Your task to perform on an android device: turn on improve location accuracy Image 0: 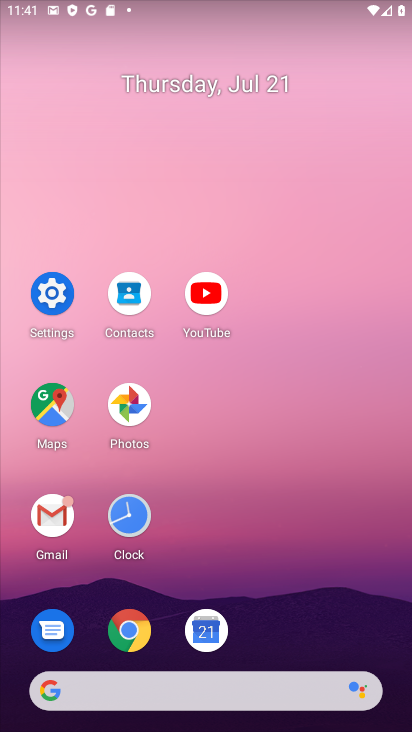
Step 0: click (49, 294)
Your task to perform on an android device: turn on improve location accuracy Image 1: 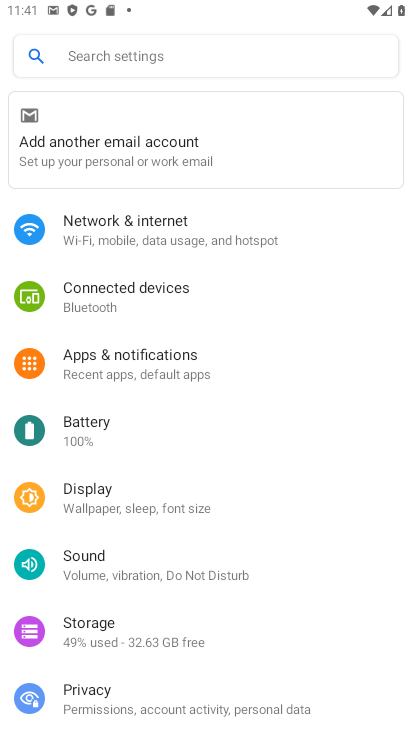
Step 1: drag from (166, 657) to (156, 324)
Your task to perform on an android device: turn on improve location accuracy Image 2: 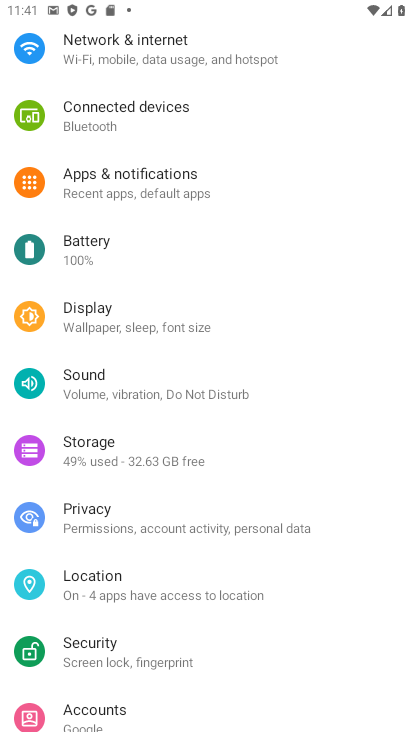
Step 2: click (94, 573)
Your task to perform on an android device: turn on improve location accuracy Image 3: 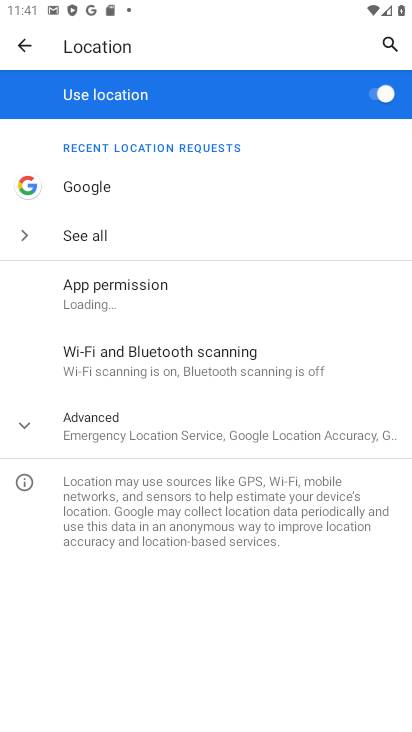
Step 3: click (23, 421)
Your task to perform on an android device: turn on improve location accuracy Image 4: 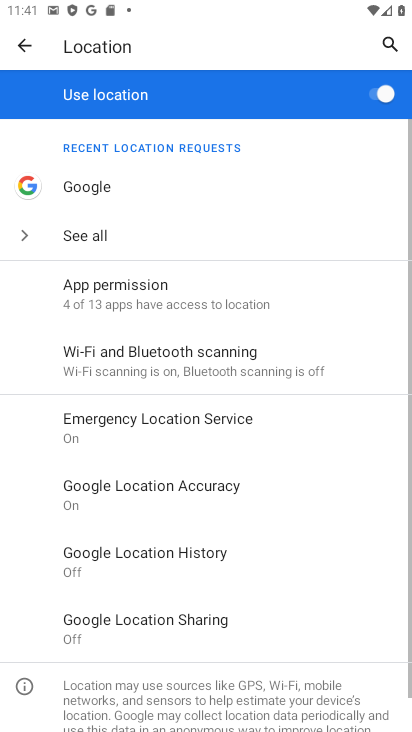
Step 4: click (155, 487)
Your task to perform on an android device: turn on improve location accuracy Image 5: 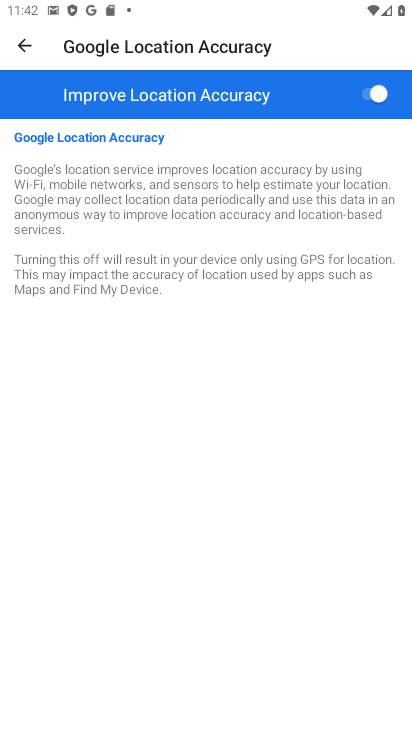
Step 5: task complete